Your task to perform on an android device: Open Youtube and go to the subscriptions tab Image 0: 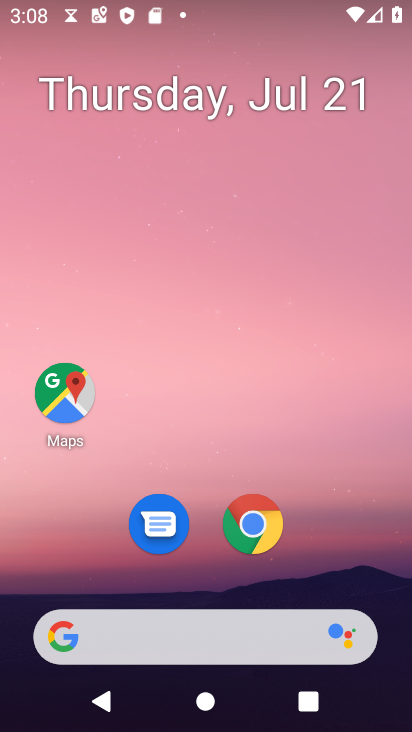
Step 0: press home button
Your task to perform on an android device: Open Youtube and go to the subscriptions tab Image 1: 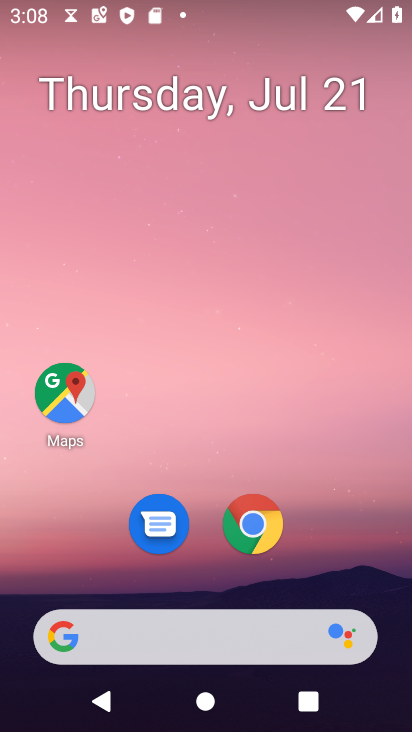
Step 1: drag from (174, 631) to (279, 118)
Your task to perform on an android device: Open Youtube and go to the subscriptions tab Image 2: 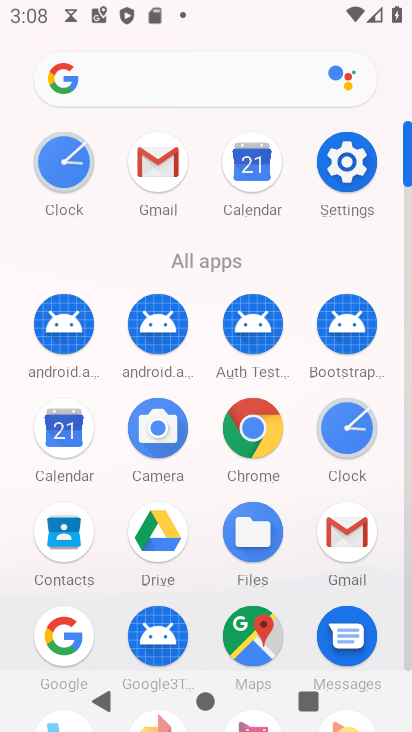
Step 2: drag from (204, 616) to (300, 89)
Your task to perform on an android device: Open Youtube and go to the subscriptions tab Image 3: 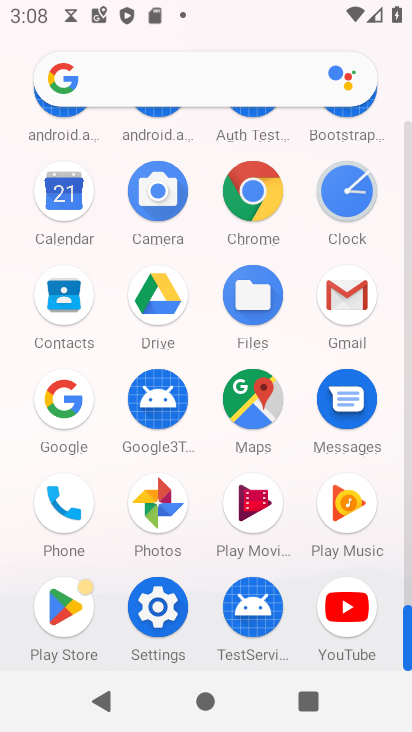
Step 3: click (358, 619)
Your task to perform on an android device: Open Youtube and go to the subscriptions tab Image 4: 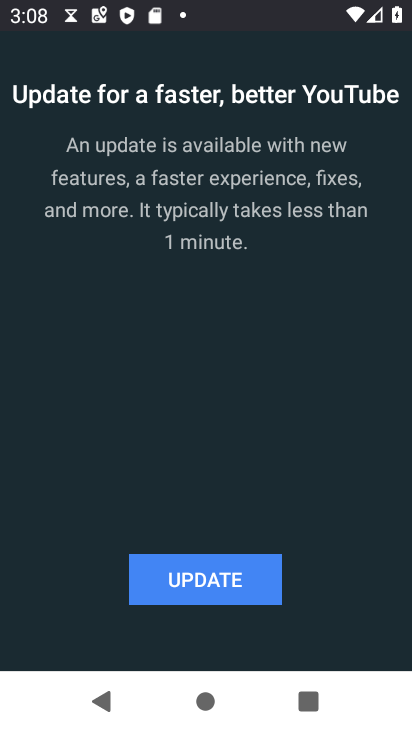
Step 4: click (213, 591)
Your task to perform on an android device: Open Youtube and go to the subscriptions tab Image 5: 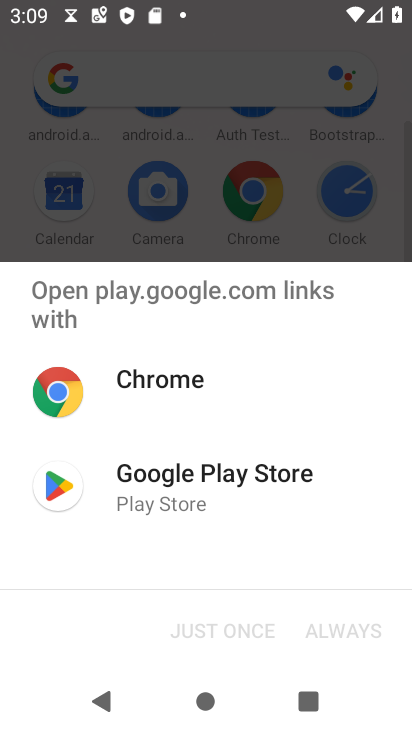
Step 5: click (182, 490)
Your task to perform on an android device: Open Youtube and go to the subscriptions tab Image 6: 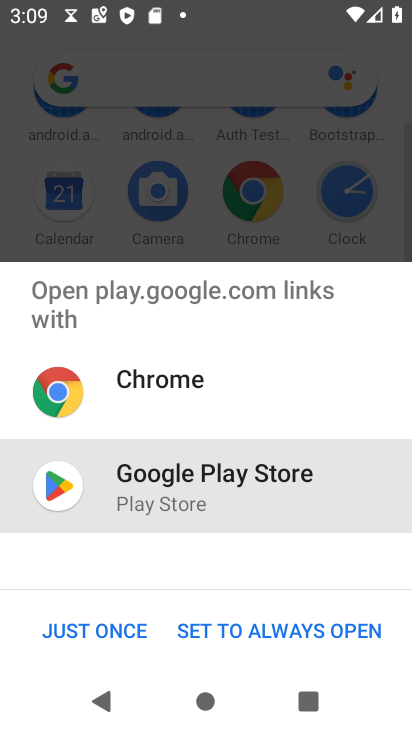
Step 6: click (117, 630)
Your task to perform on an android device: Open Youtube and go to the subscriptions tab Image 7: 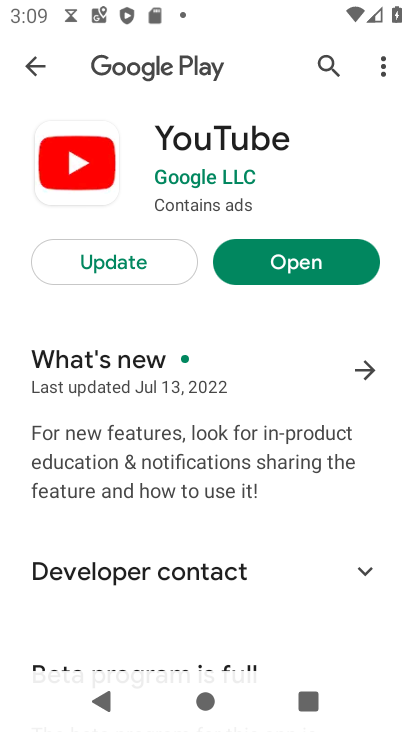
Step 7: click (285, 259)
Your task to perform on an android device: Open Youtube and go to the subscriptions tab Image 8: 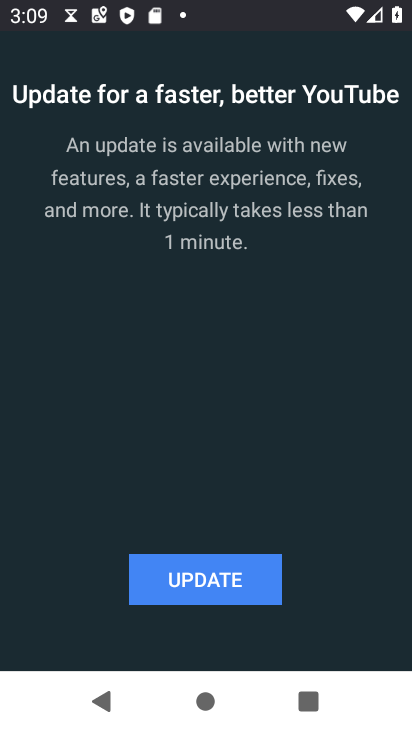
Step 8: click (210, 580)
Your task to perform on an android device: Open Youtube and go to the subscriptions tab Image 9: 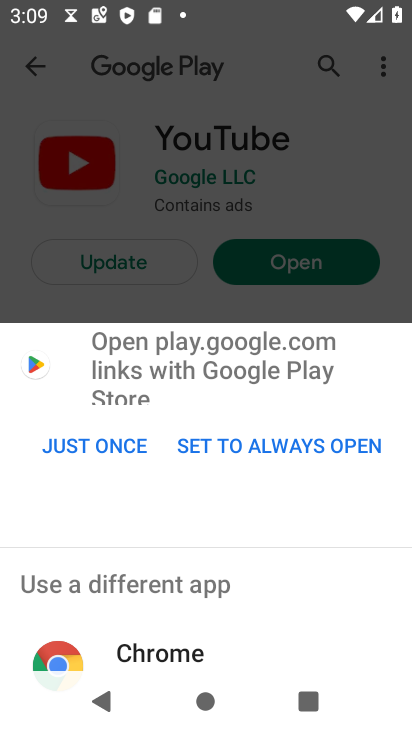
Step 9: click (116, 448)
Your task to perform on an android device: Open Youtube and go to the subscriptions tab Image 10: 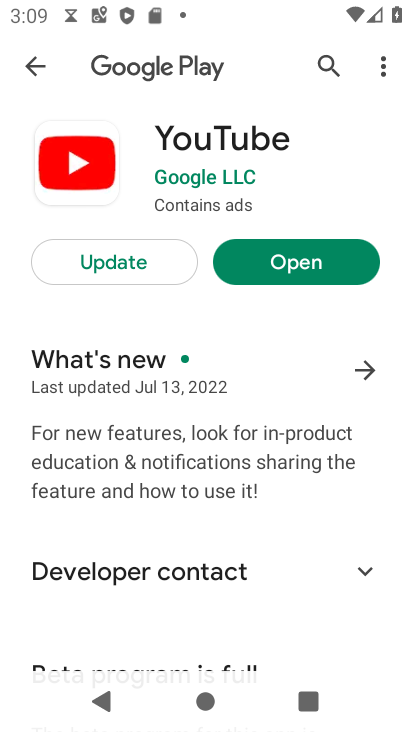
Step 10: click (122, 264)
Your task to perform on an android device: Open Youtube and go to the subscriptions tab Image 11: 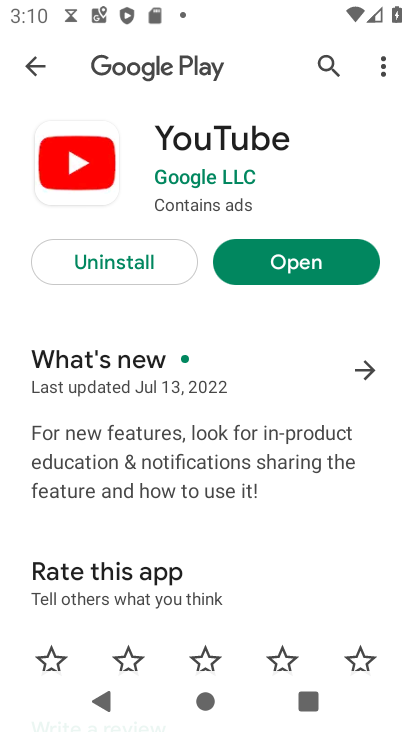
Step 11: click (304, 261)
Your task to perform on an android device: Open Youtube and go to the subscriptions tab Image 12: 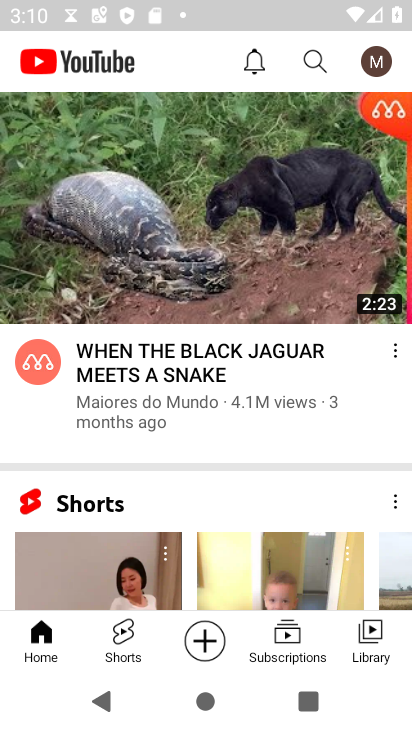
Step 12: click (276, 631)
Your task to perform on an android device: Open Youtube and go to the subscriptions tab Image 13: 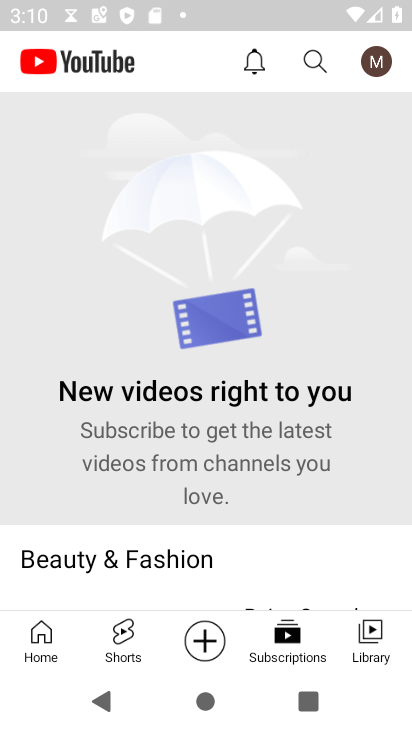
Step 13: task complete